Your task to perform on an android device: toggle sleep mode Image 0: 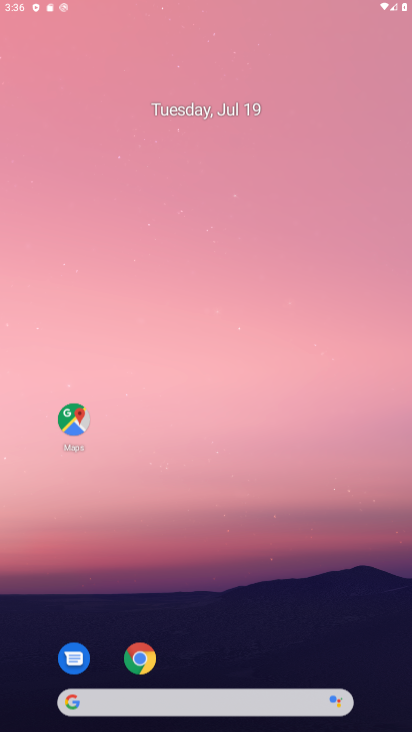
Step 0: drag from (221, 53) to (163, 6)
Your task to perform on an android device: toggle sleep mode Image 1: 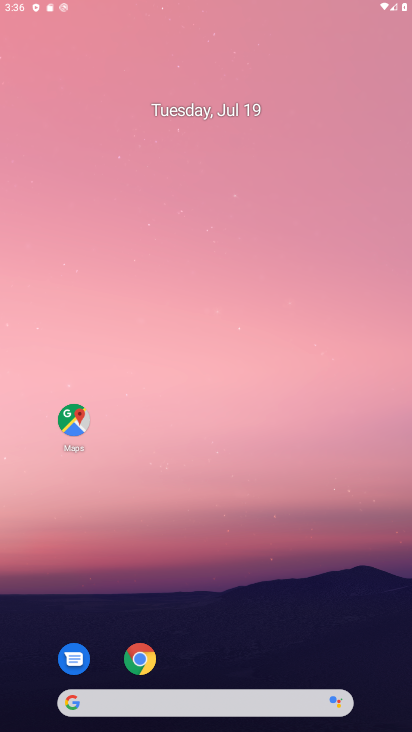
Step 1: drag from (118, 275) to (127, 17)
Your task to perform on an android device: toggle sleep mode Image 2: 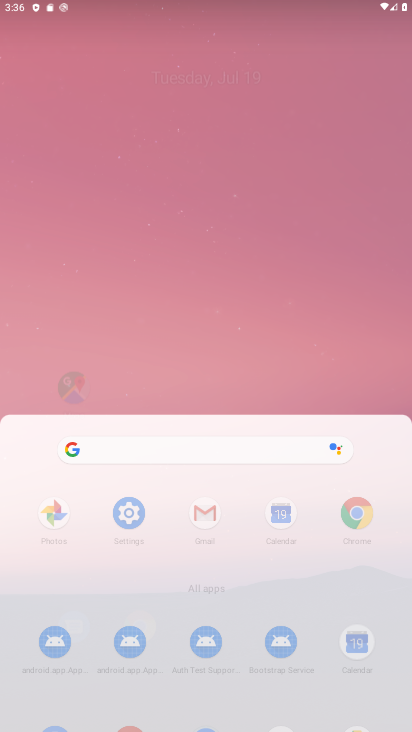
Step 2: drag from (201, 492) to (205, 30)
Your task to perform on an android device: toggle sleep mode Image 3: 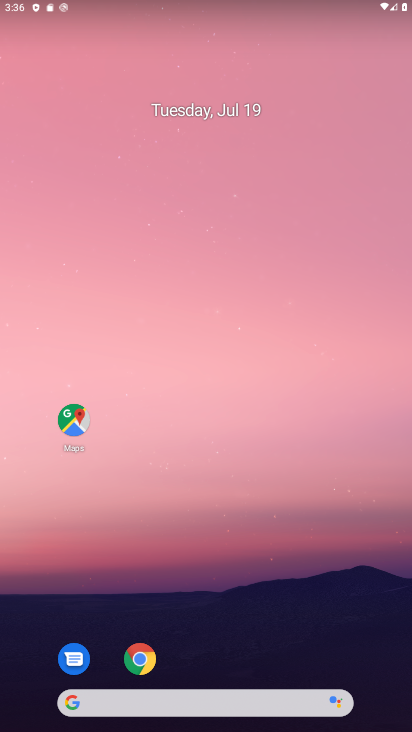
Step 3: drag from (206, 490) to (206, 107)
Your task to perform on an android device: toggle sleep mode Image 4: 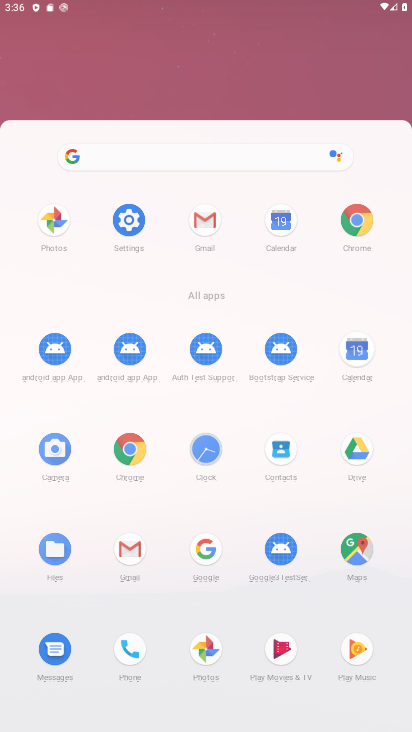
Step 4: drag from (232, 548) to (236, 10)
Your task to perform on an android device: toggle sleep mode Image 5: 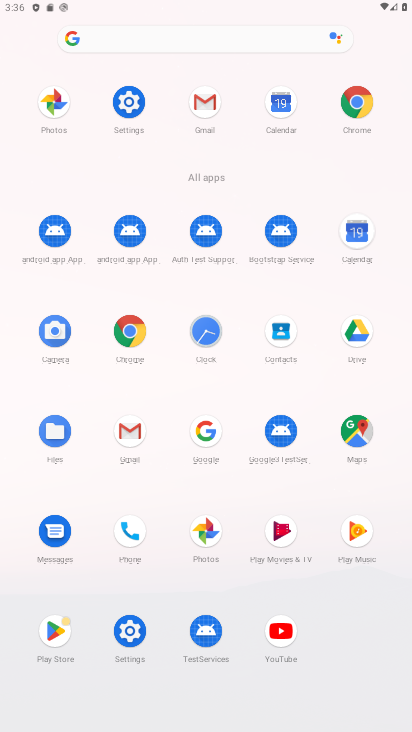
Step 5: click (122, 116)
Your task to perform on an android device: toggle sleep mode Image 6: 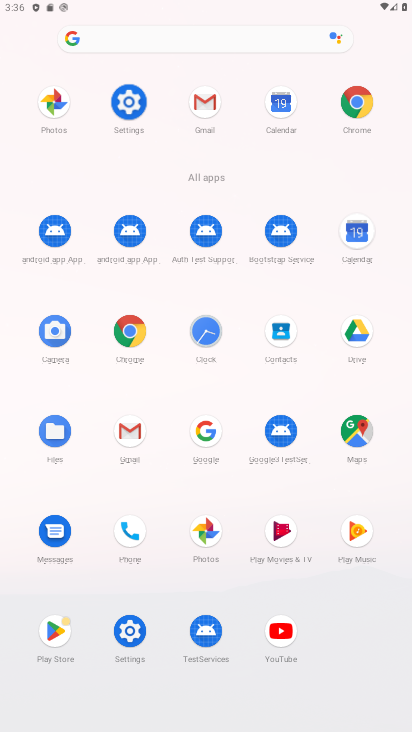
Step 6: click (122, 116)
Your task to perform on an android device: toggle sleep mode Image 7: 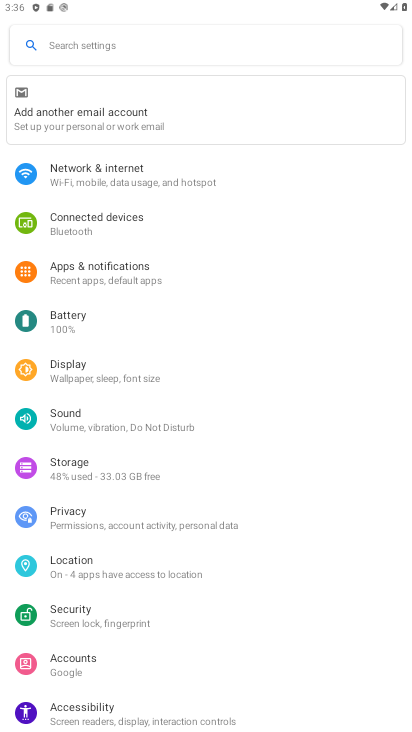
Step 7: click (77, 367)
Your task to perform on an android device: toggle sleep mode Image 8: 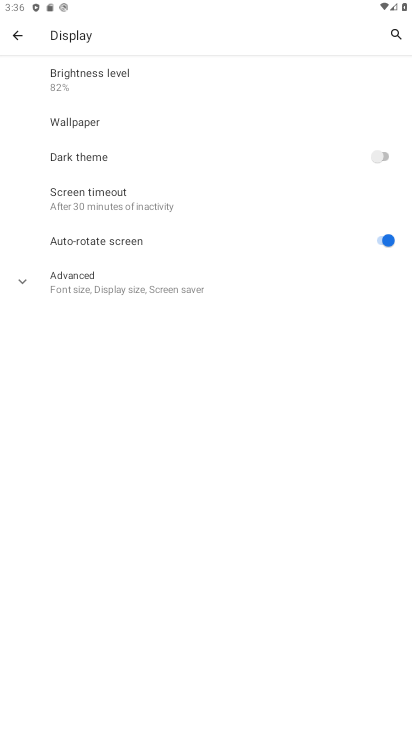
Step 8: click (78, 279)
Your task to perform on an android device: toggle sleep mode Image 9: 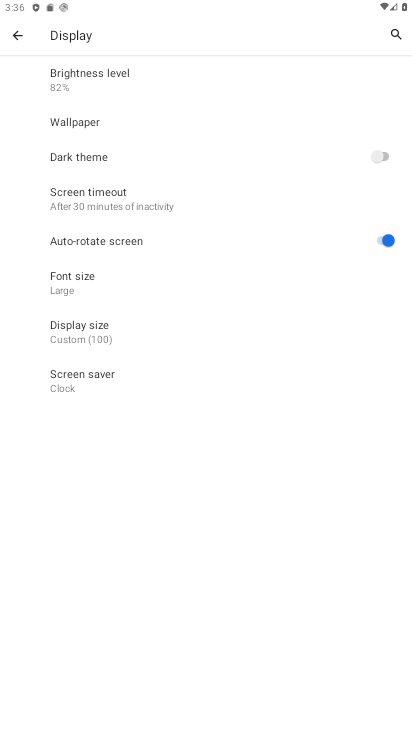
Step 9: click (66, 277)
Your task to perform on an android device: toggle sleep mode Image 10: 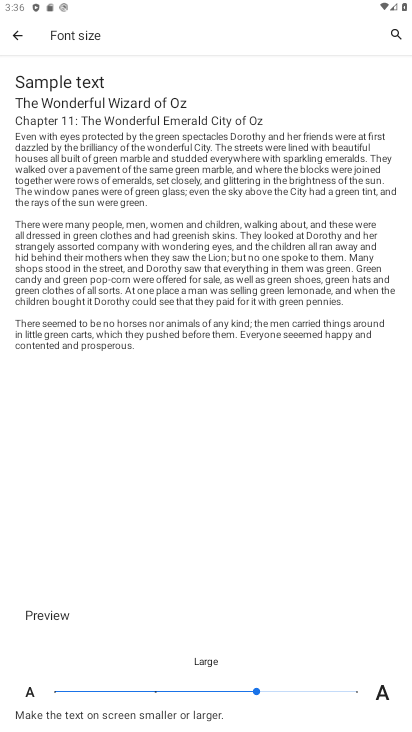
Step 10: click (357, 691)
Your task to perform on an android device: toggle sleep mode Image 11: 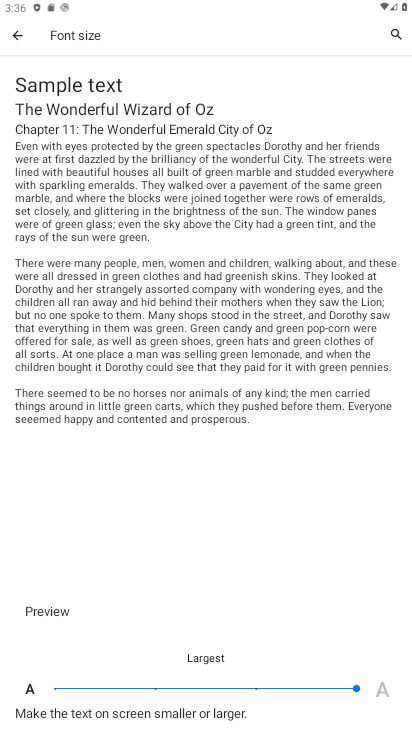
Step 11: press back button
Your task to perform on an android device: toggle sleep mode Image 12: 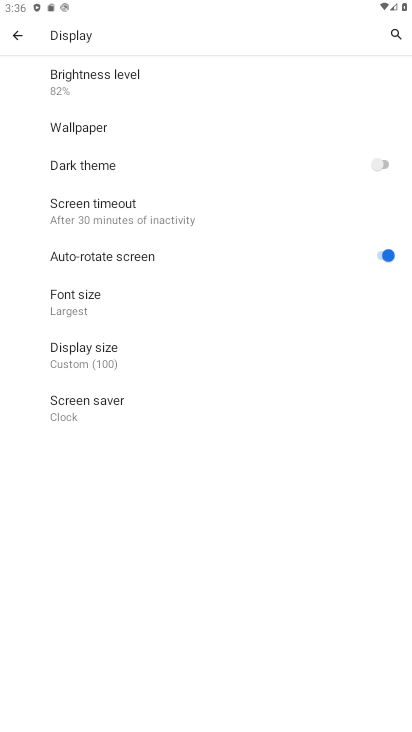
Step 12: click (20, 32)
Your task to perform on an android device: toggle sleep mode Image 13: 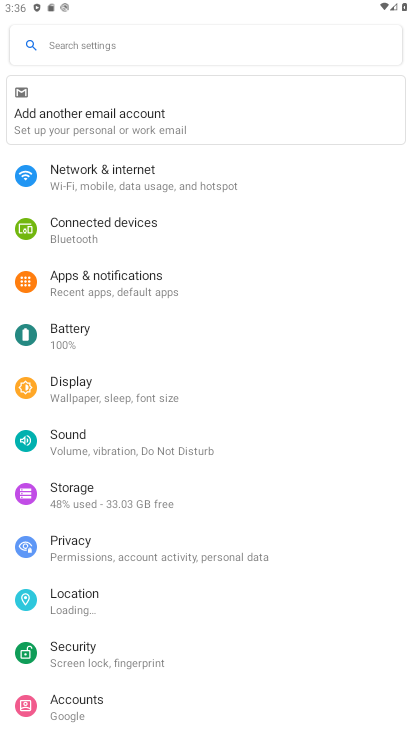
Step 13: click (103, 396)
Your task to perform on an android device: toggle sleep mode Image 14: 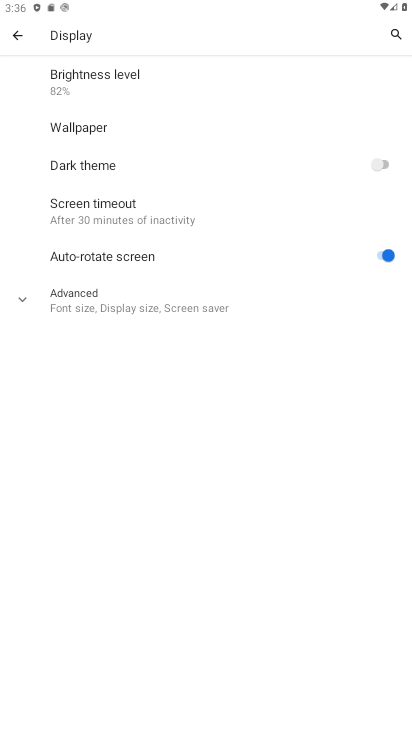
Step 14: click (84, 212)
Your task to perform on an android device: toggle sleep mode Image 15: 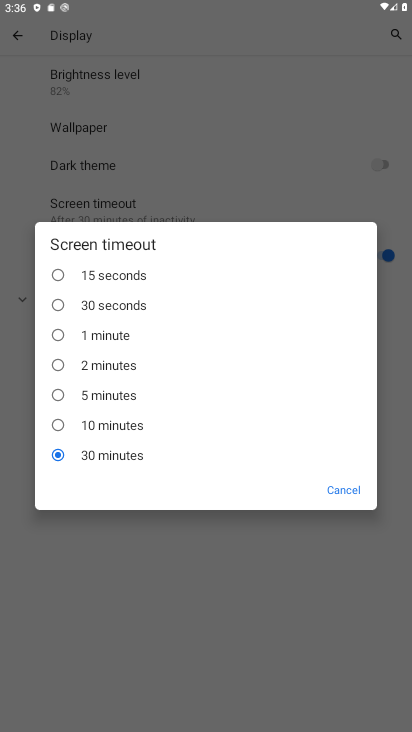
Step 15: click (214, 141)
Your task to perform on an android device: toggle sleep mode Image 16: 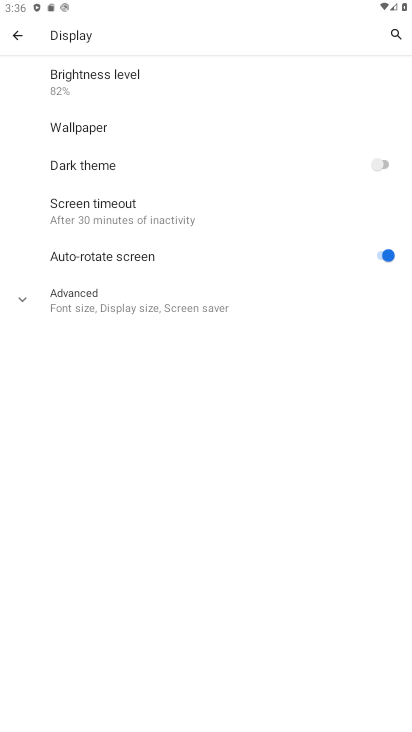
Step 16: click (95, 210)
Your task to perform on an android device: toggle sleep mode Image 17: 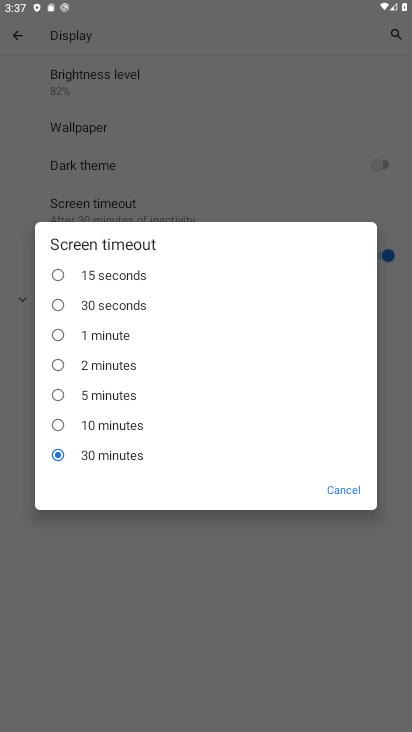
Step 17: click (56, 304)
Your task to perform on an android device: toggle sleep mode Image 18: 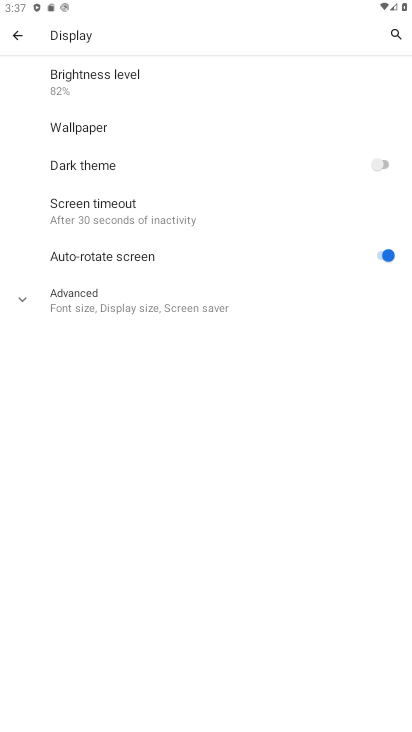
Step 18: task complete